Your task to perform on an android device: Go to calendar. Show me events next week Image 0: 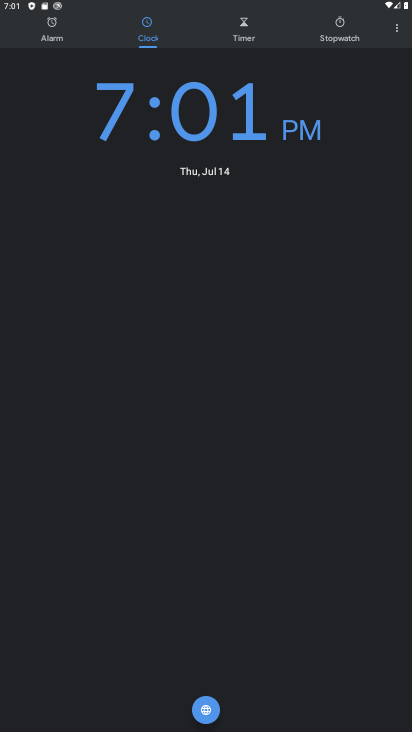
Step 0: press home button
Your task to perform on an android device: Go to calendar. Show me events next week Image 1: 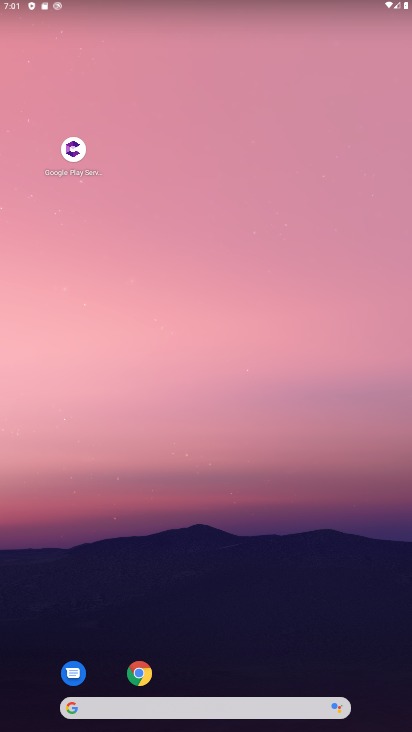
Step 1: drag from (266, 719) to (268, 265)
Your task to perform on an android device: Go to calendar. Show me events next week Image 2: 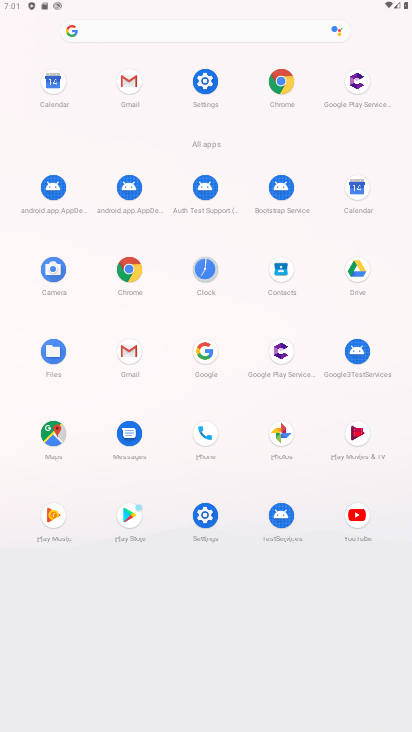
Step 2: click (351, 191)
Your task to perform on an android device: Go to calendar. Show me events next week Image 3: 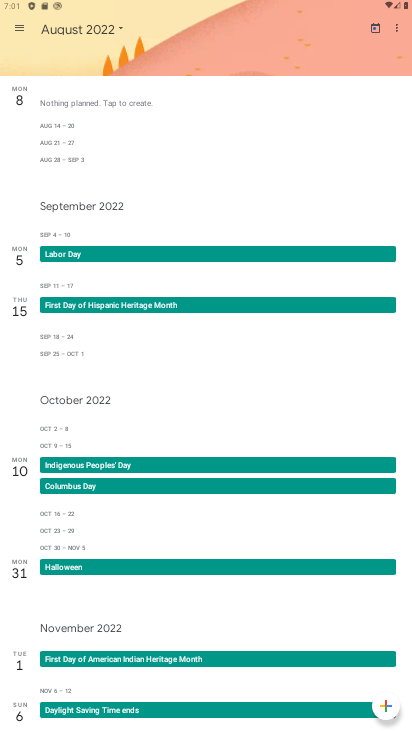
Step 3: click (17, 24)
Your task to perform on an android device: Go to calendar. Show me events next week Image 4: 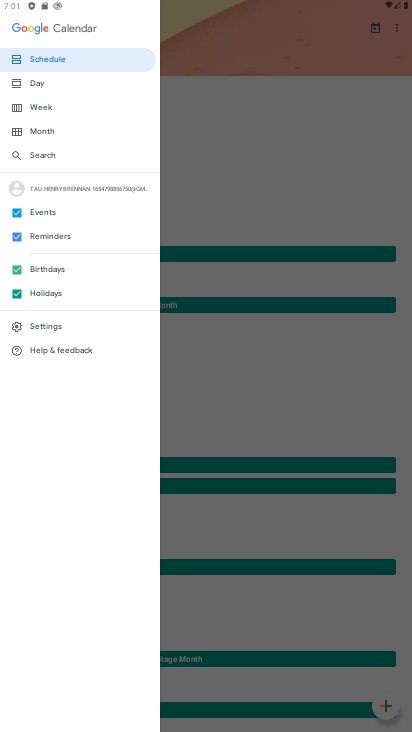
Step 4: click (55, 132)
Your task to perform on an android device: Go to calendar. Show me events next week Image 5: 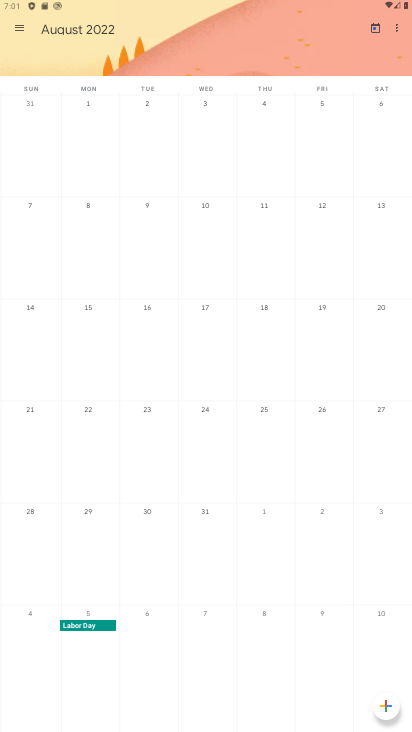
Step 5: click (386, 309)
Your task to perform on an android device: Go to calendar. Show me events next week Image 6: 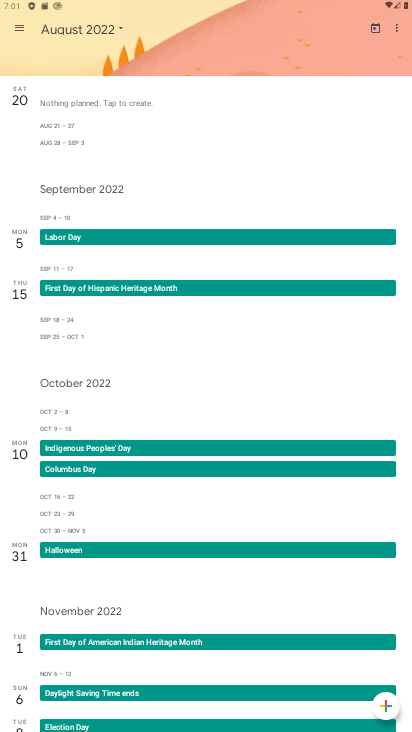
Step 6: click (47, 326)
Your task to perform on an android device: Go to calendar. Show me events next week Image 7: 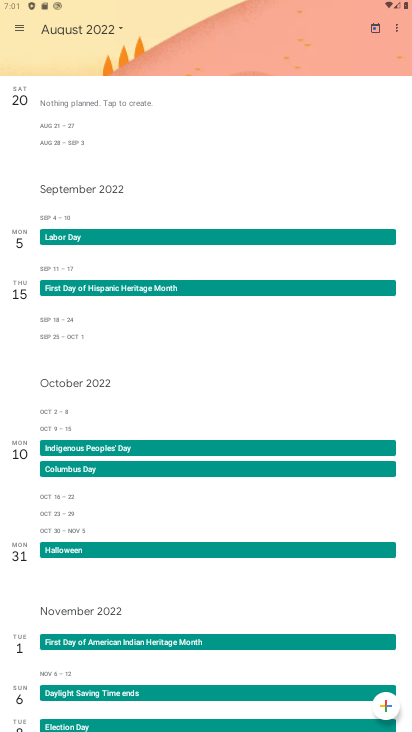
Step 7: task complete